Your task to perform on an android device: create a new album in the google photos Image 0: 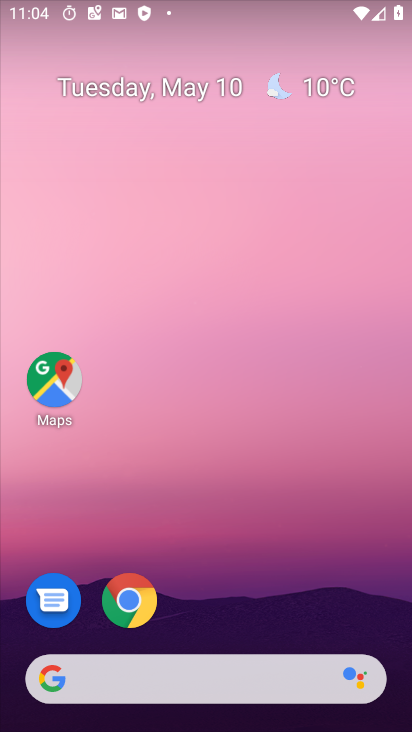
Step 0: drag from (286, 576) to (277, 12)
Your task to perform on an android device: create a new album in the google photos Image 1: 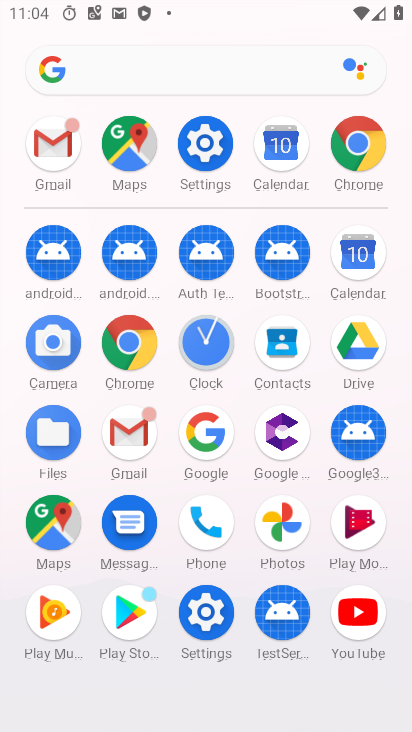
Step 1: click (283, 522)
Your task to perform on an android device: create a new album in the google photos Image 2: 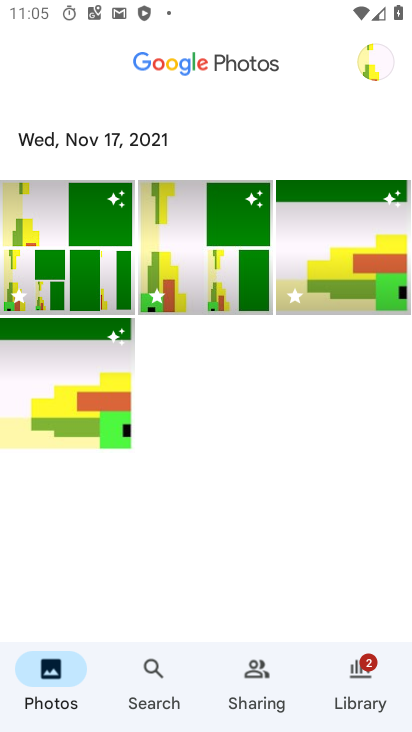
Step 2: click (315, 234)
Your task to perform on an android device: create a new album in the google photos Image 3: 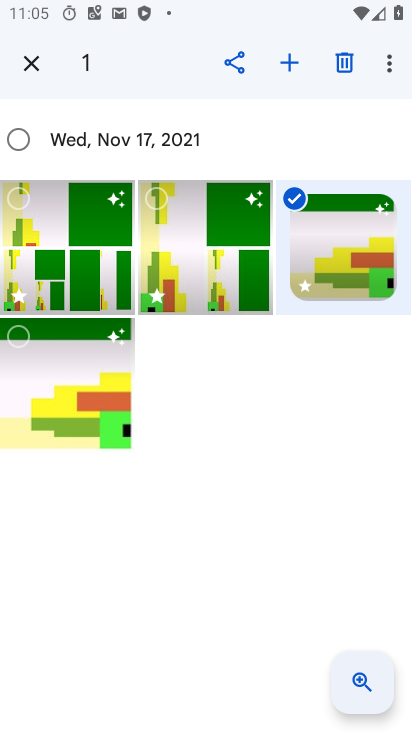
Step 3: click (291, 56)
Your task to perform on an android device: create a new album in the google photos Image 4: 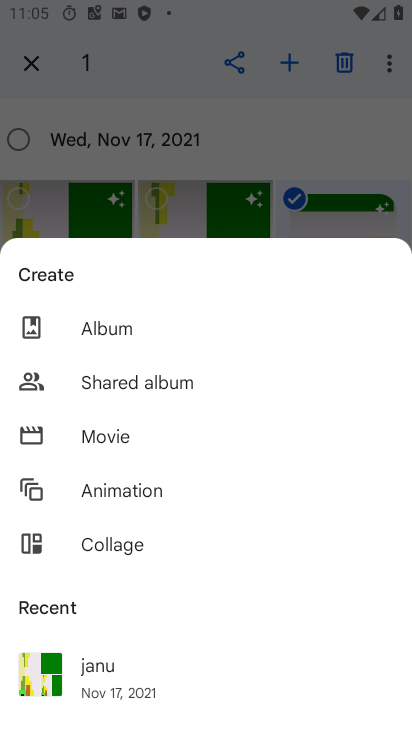
Step 4: click (156, 332)
Your task to perform on an android device: create a new album in the google photos Image 5: 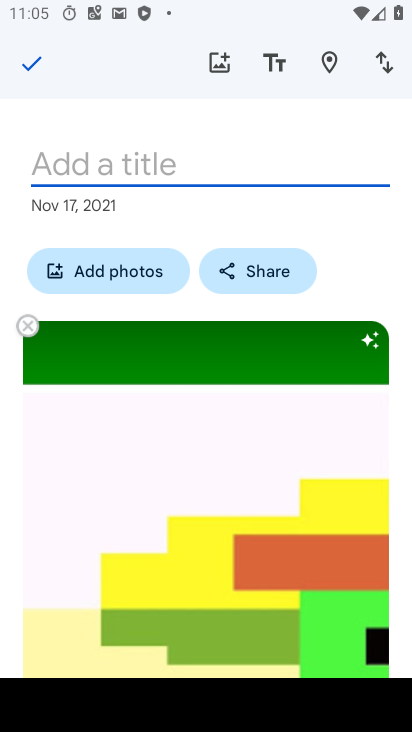
Step 5: type "Sdtu"
Your task to perform on an android device: create a new album in the google photos Image 6: 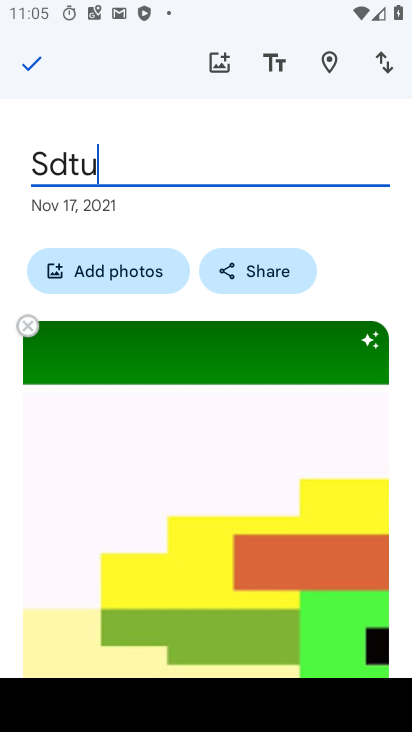
Step 6: type ""
Your task to perform on an android device: create a new album in the google photos Image 7: 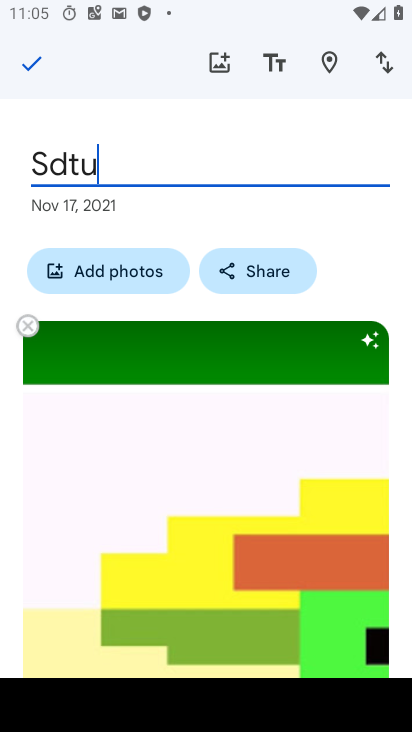
Step 7: click (26, 62)
Your task to perform on an android device: create a new album in the google photos Image 8: 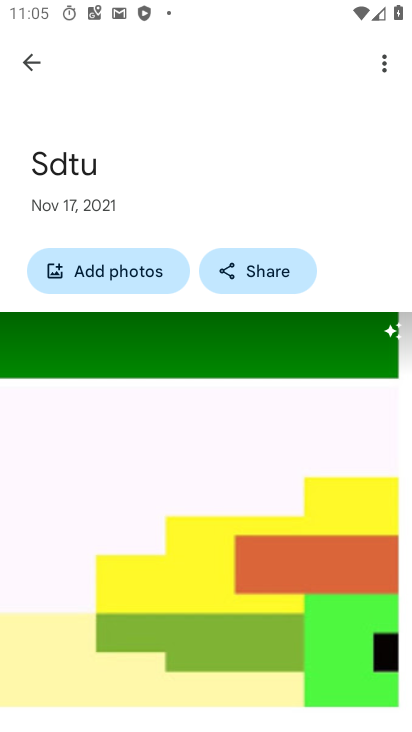
Step 8: task complete